Your task to perform on an android device: turn off priority inbox in the gmail app Image 0: 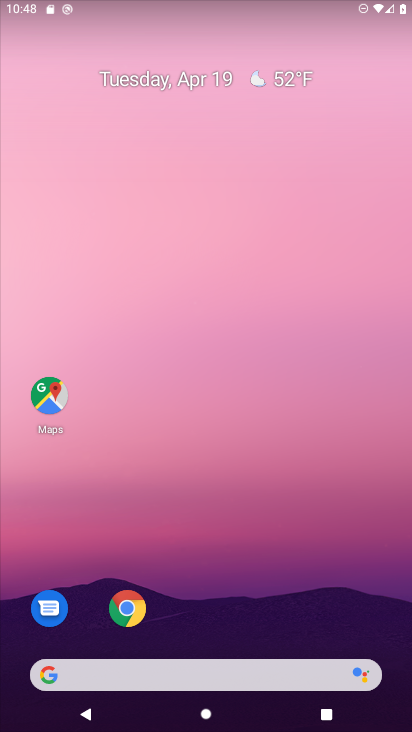
Step 0: drag from (298, 529) to (339, 120)
Your task to perform on an android device: turn off priority inbox in the gmail app Image 1: 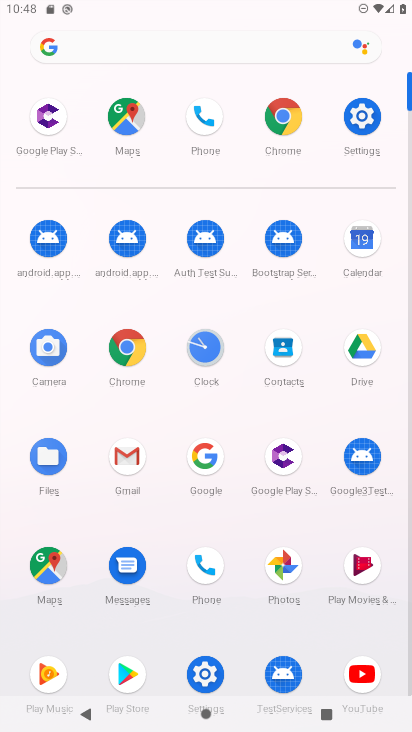
Step 1: click (112, 455)
Your task to perform on an android device: turn off priority inbox in the gmail app Image 2: 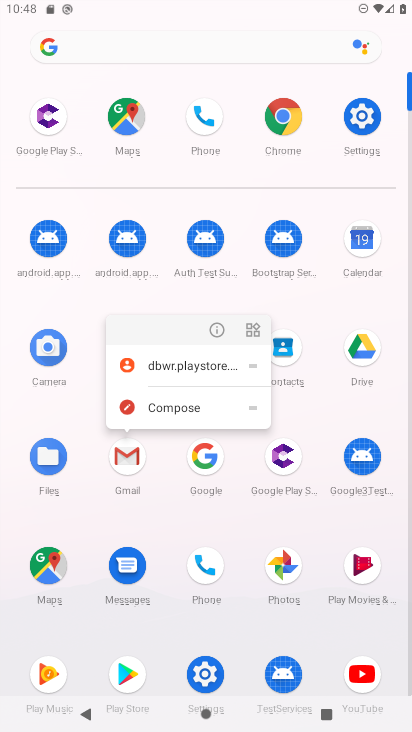
Step 2: click (125, 463)
Your task to perform on an android device: turn off priority inbox in the gmail app Image 3: 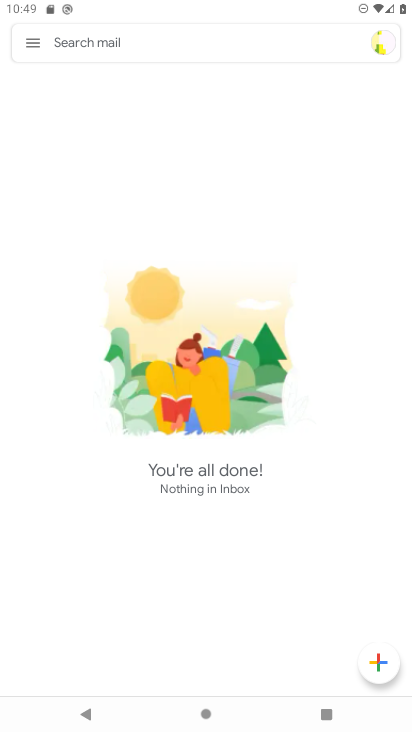
Step 3: click (32, 41)
Your task to perform on an android device: turn off priority inbox in the gmail app Image 4: 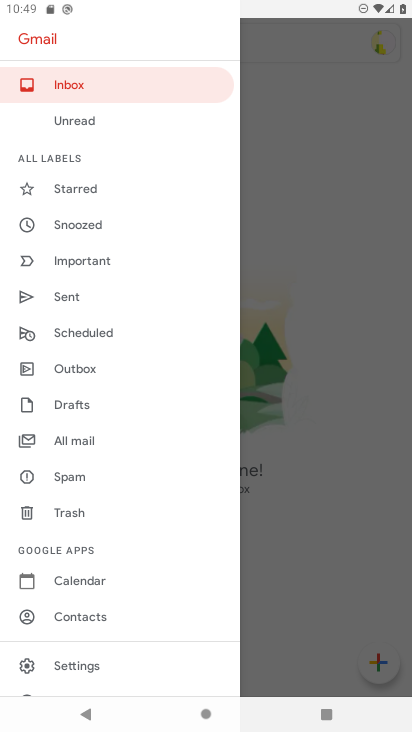
Step 4: click (84, 660)
Your task to perform on an android device: turn off priority inbox in the gmail app Image 5: 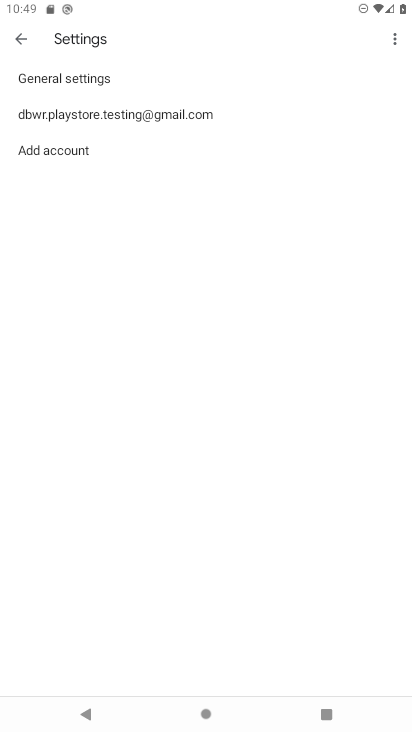
Step 5: click (95, 104)
Your task to perform on an android device: turn off priority inbox in the gmail app Image 6: 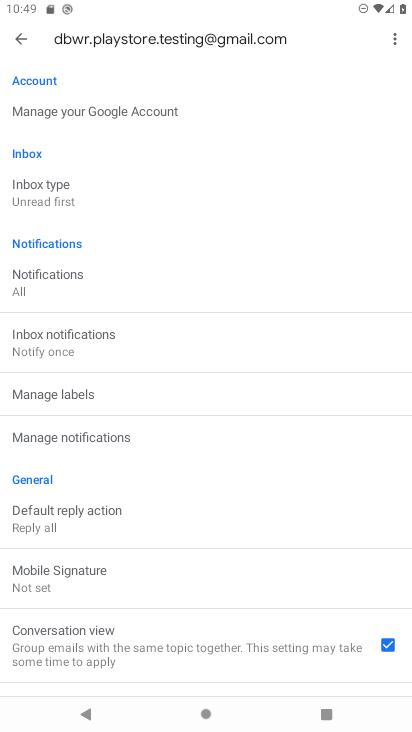
Step 6: click (35, 192)
Your task to perform on an android device: turn off priority inbox in the gmail app Image 7: 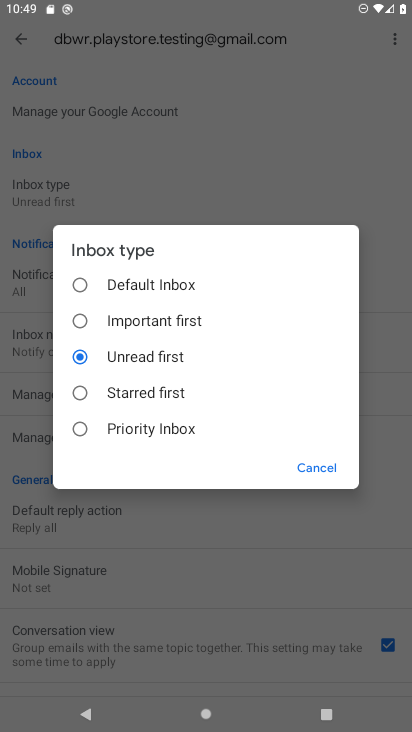
Step 7: task complete